Your task to perform on an android device: check out phone information Image 0: 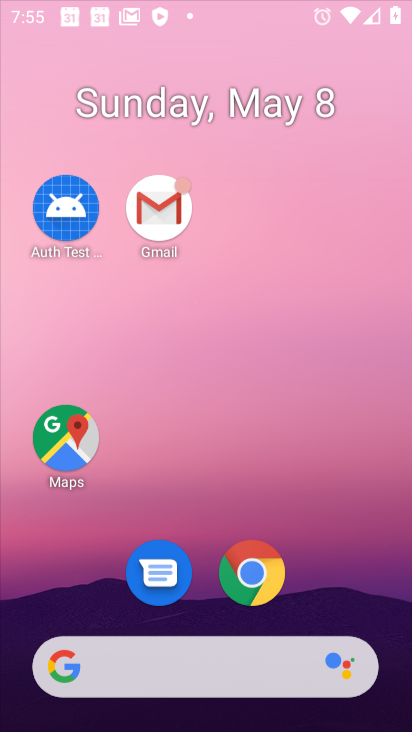
Step 0: click (223, 247)
Your task to perform on an android device: check out phone information Image 1: 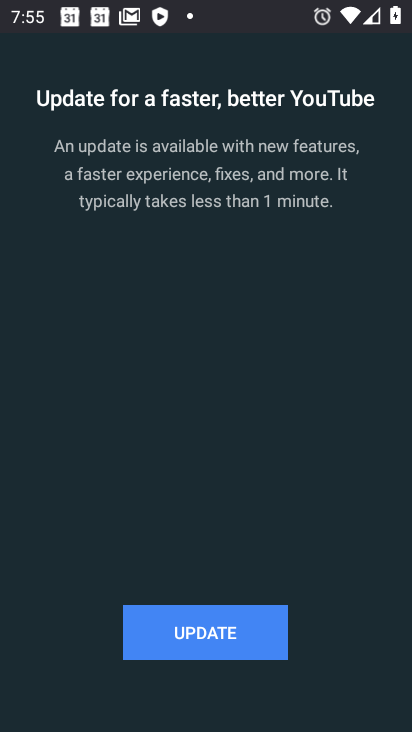
Step 1: click (231, 627)
Your task to perform on an android device: check out phone information Image 2: 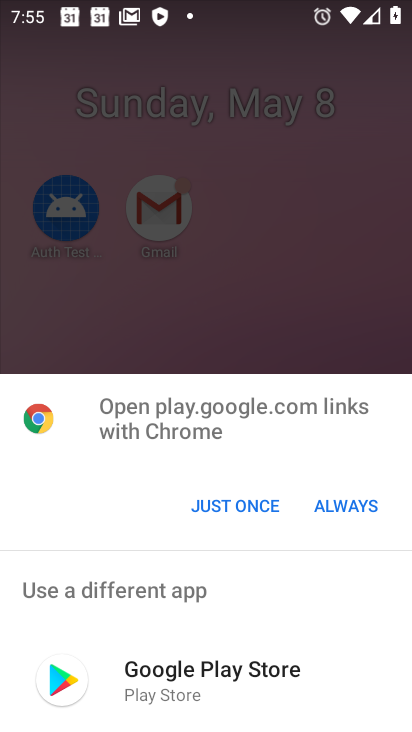
Step 2: press home button
Your task to perform on an android device: check out phone information Image 3: 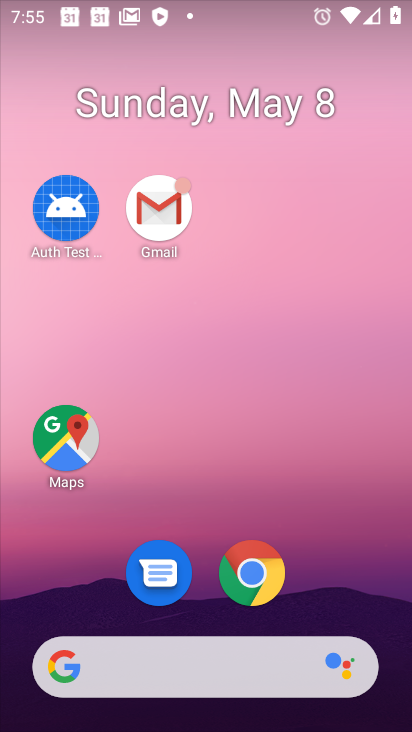
Step 3: press home button
Your task to perform on an android device: check out phone information Image 4: 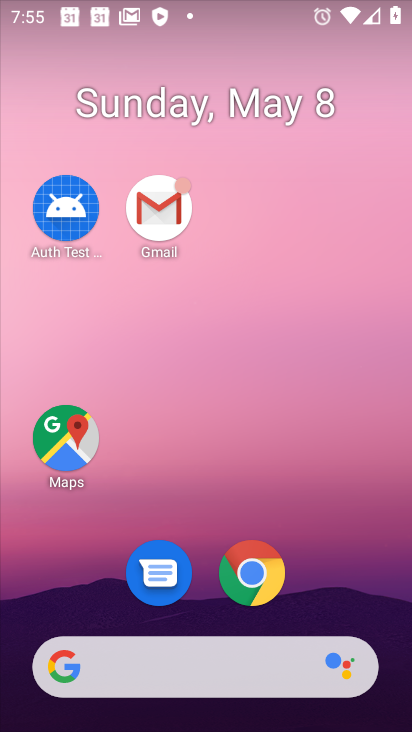
Step 4: press home button
Your task to perform on an android device: check out phone information Image 5: 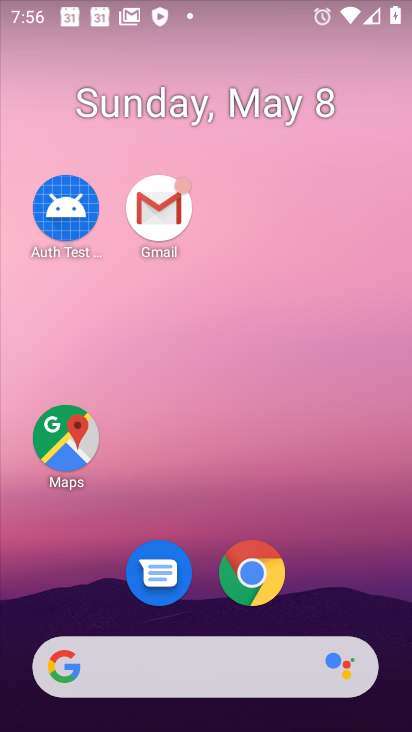
Step 5: press home button
Your task to perform on an android device: check out phone information Image 6: 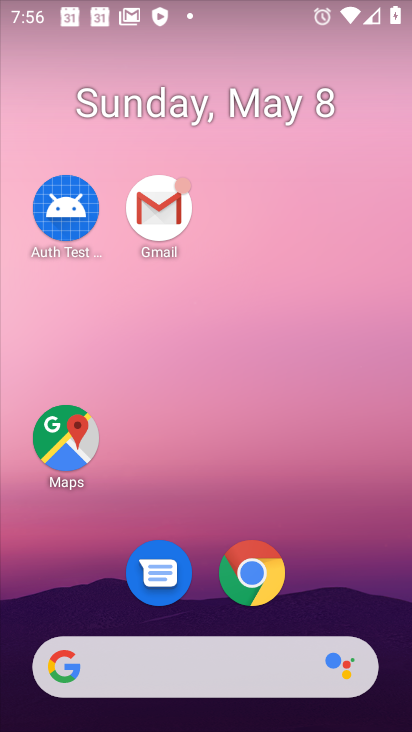
Step 6: drag from (314, 534) to (214, 100)
Your task to perform on an android device: check out phone information Image 7: 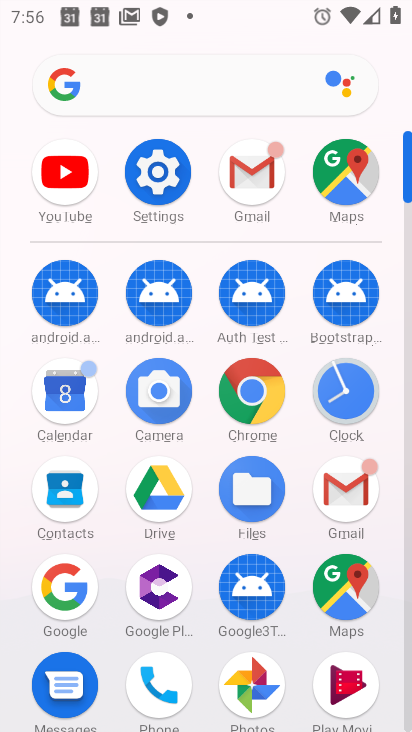
Step 7: click (147, 179)
Your task to perform on an android device: check out phone information Image 8: 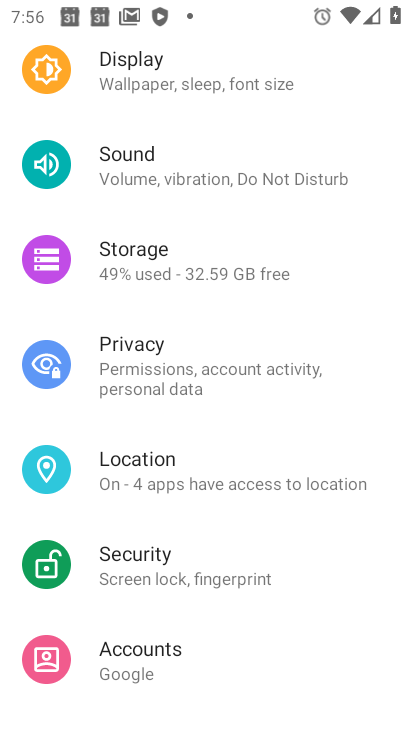
Step 8: drag from (156, 502) to (213, 70)
Your task to perform on an android device: check out phone information Image 9: 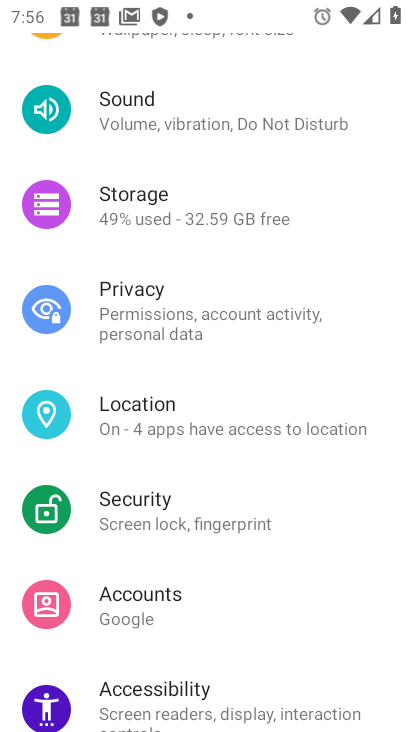
Step 9: click (179, 430)
Your task to perform on an android device: check out phone information Image 10: 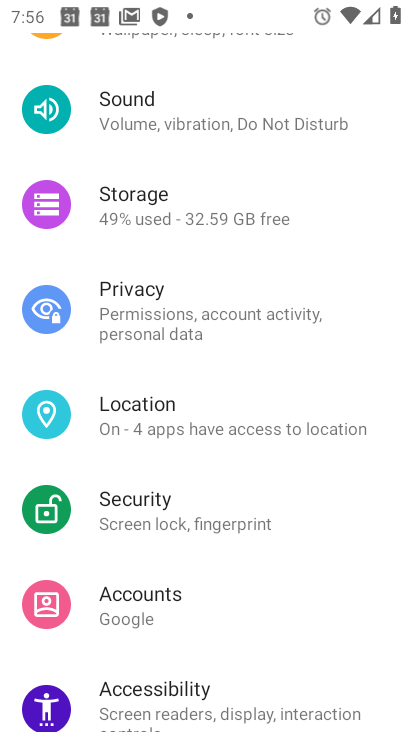
Step 10: click (179, 430)
Your task to perform on an android device: check out phone information Image 11: 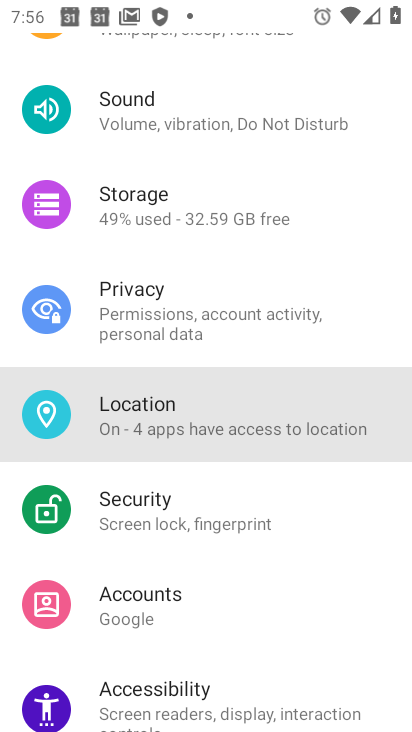
Step 11: click (179, 430)
Your task to perform on an android device: check out phone information Image 12: 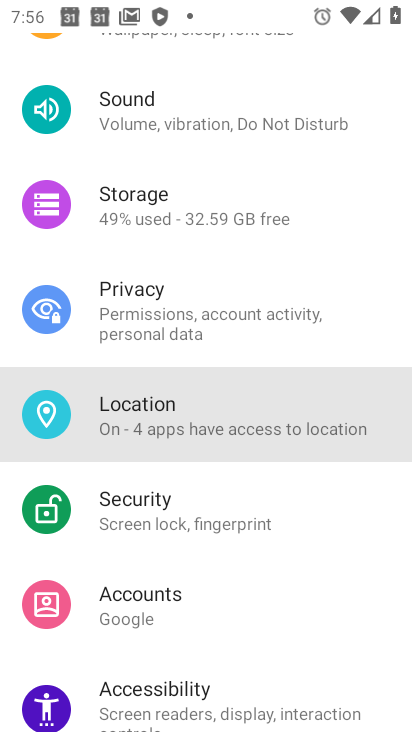
Step 12: click (179, 430)
Your task to perform on an android device: check out phone information Image 13: 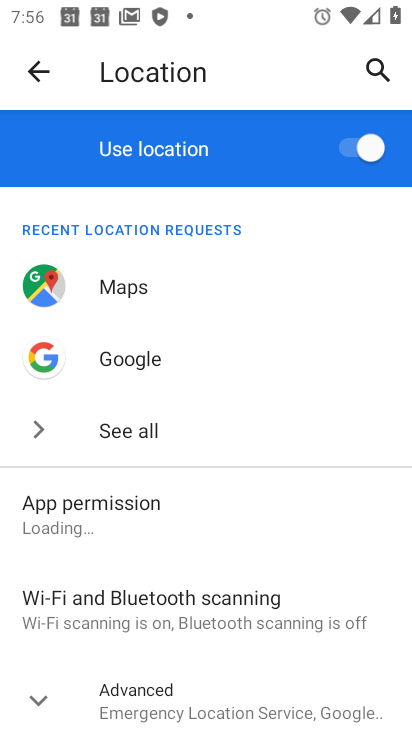
Step 13: click (74, 524)
Your task to perform on an android device: check out phone information Image 14: 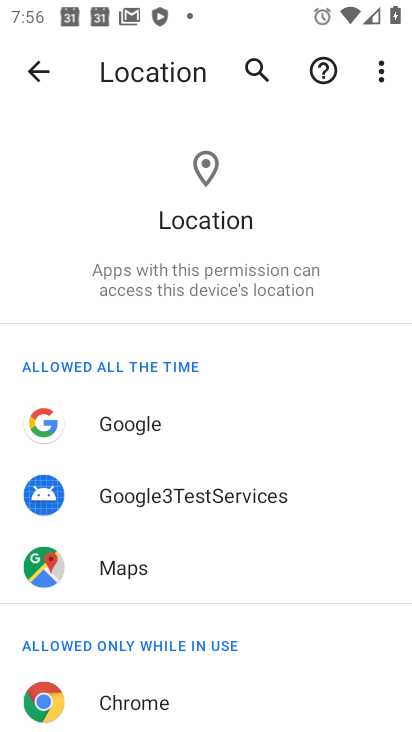
Step 14: task complete